Your task to perform on an android device: Do I have any events this weekend? Image 0: 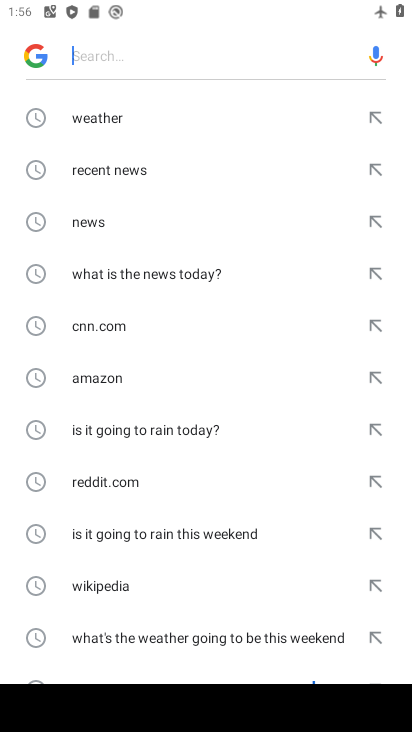
Step 0: press home button
Your task to perform on an android device: Do I have any events this weekend? Image 1: 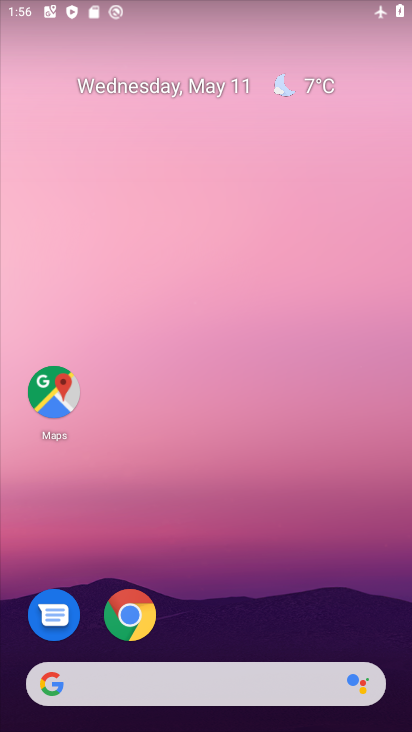
Step 1: drag from (250, 615) to (371, 82)
Your task to perform on an android device: Do I have any events this weekend? Image 2: 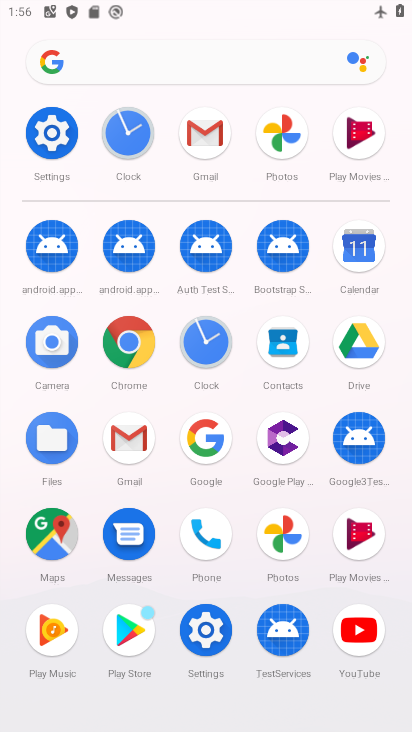
Step 2: click (368, 250)
Your task to perform on an android device: Do I have any events this weekend? Image 3: 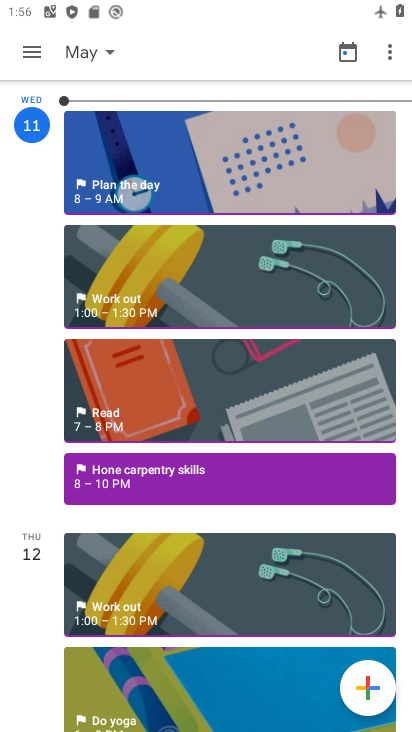
Step 3: click (94, 51)
Your task to perform on an android device: Do I have any events this weekend? Image 4: 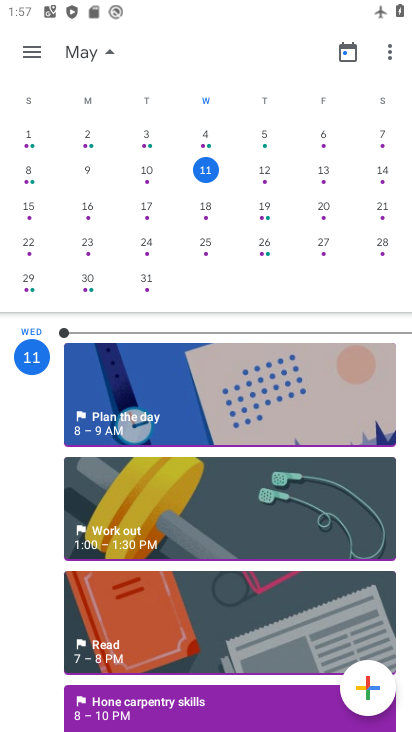
Step 4: click (30, 50)
Your task to perform on an android device: Do I have any events this weekend? Image 5: 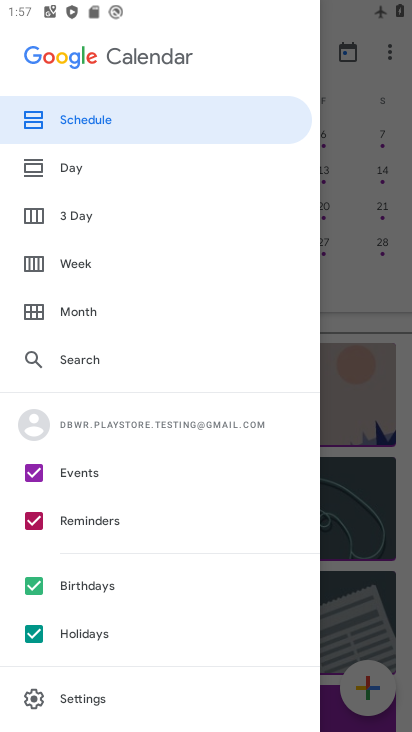
Step 5: click (80, 262)
Your task to perform on an android device: Do I have any events this weekend? Image 6: 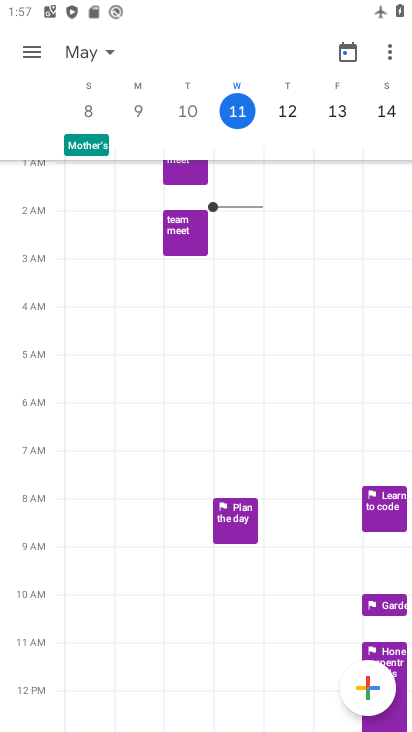
Step 6: drag from (366, 105) to (197, 102)
Your task to perform on an android device: Do I have any events this weekend? Image 7: 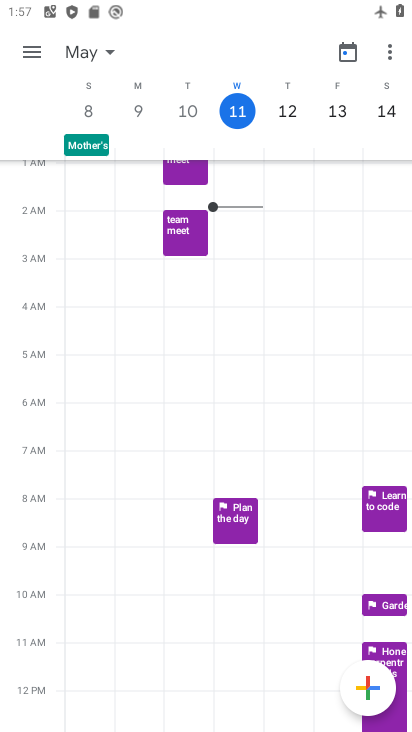
Step 7: click (27, 50)
Your task to perform on an android device: Do I have any events this weekend? Image 8: 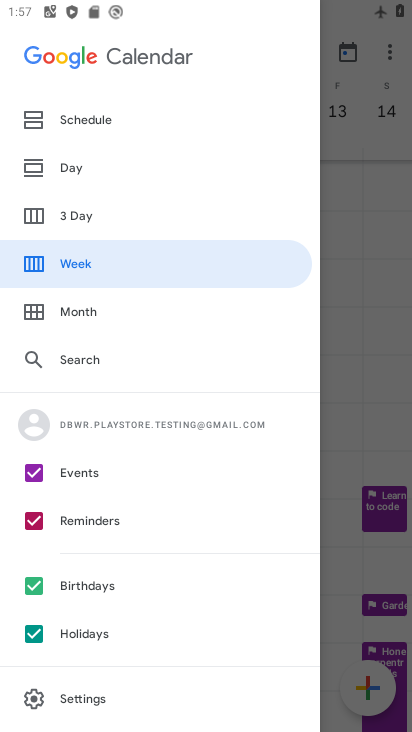
Step 8: click (357, 144)
Your task to perform on an android device: Do I have any events this weekend? Image 9: 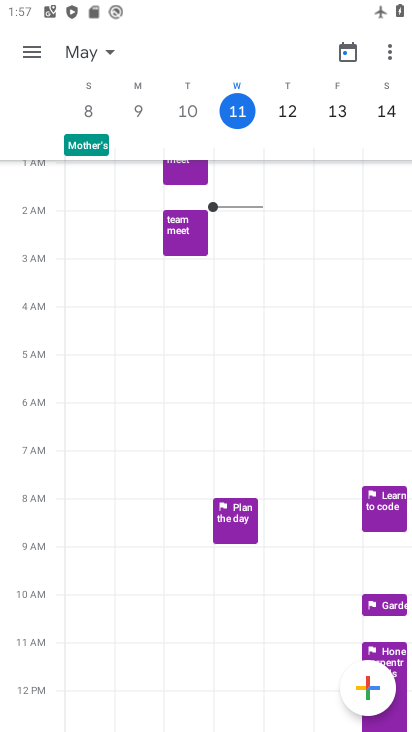
Step 9: task complete